Your task to perform on an android device: toggle location history Image 0: 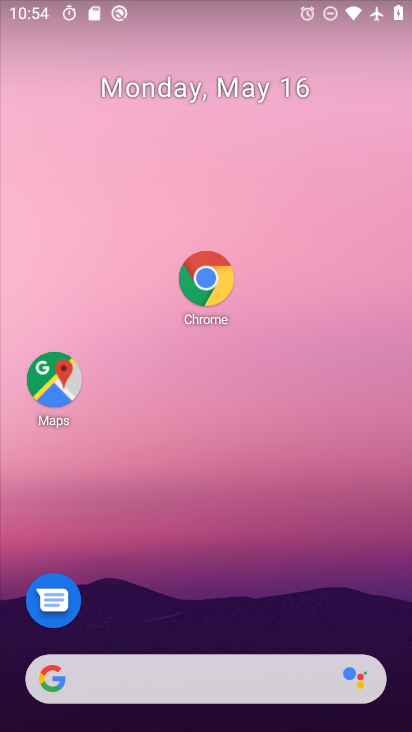
Step 0: press home button
Your task to perform on an android device: toggle location history Image 1: 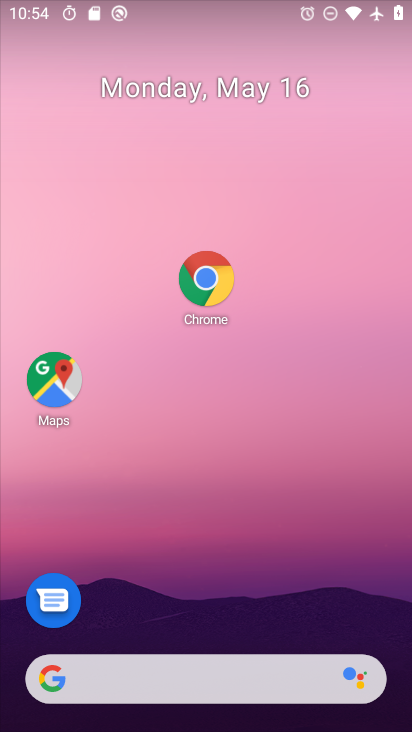
Step 1: drag from (253, 673) to (341, 222)
Your task to perform on an android device: toggle location history Image 2: 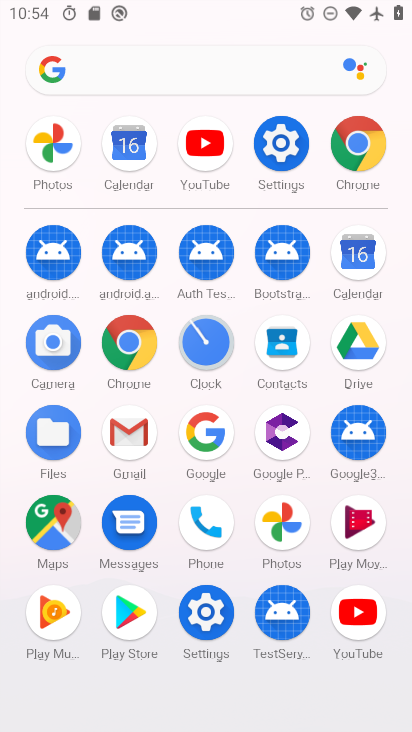
Step 2: click (285, 151)
Your task to perform on an android device: toggle location history Image 3: 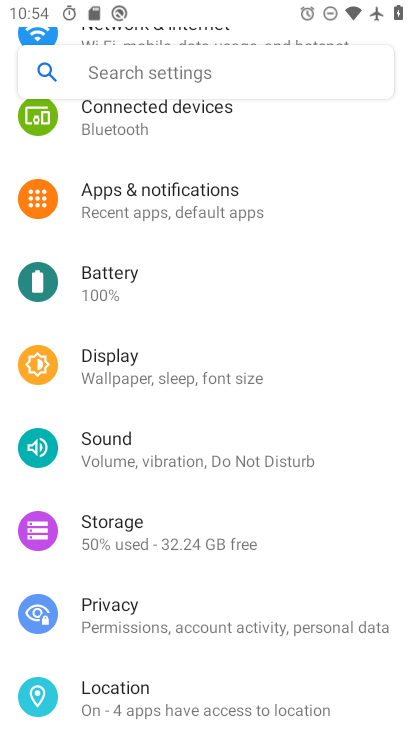
Step 3: click (119, 690)
Your task to perform on an android device: toggle location history Image 4: 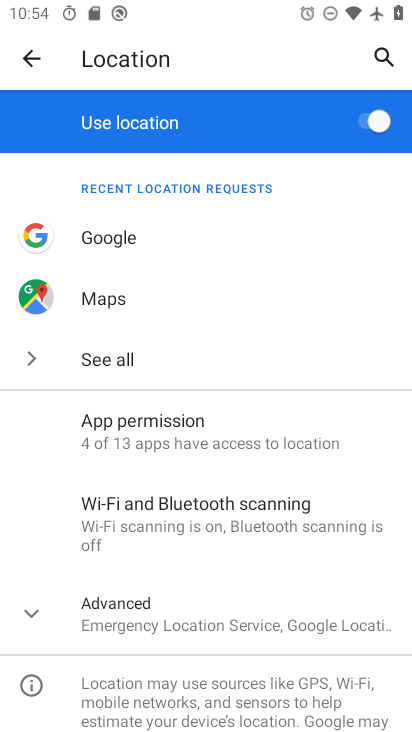
Step 4: click (157, 615)
Your task to perform on an android device: toggle location history Image 5: 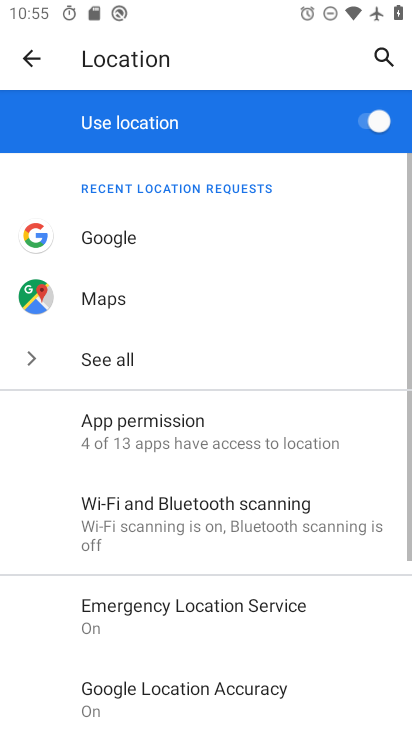
Step 5: drag from (227, 640) to (302, 177)
Your task to perform on an android device: toggle location history Image 6: 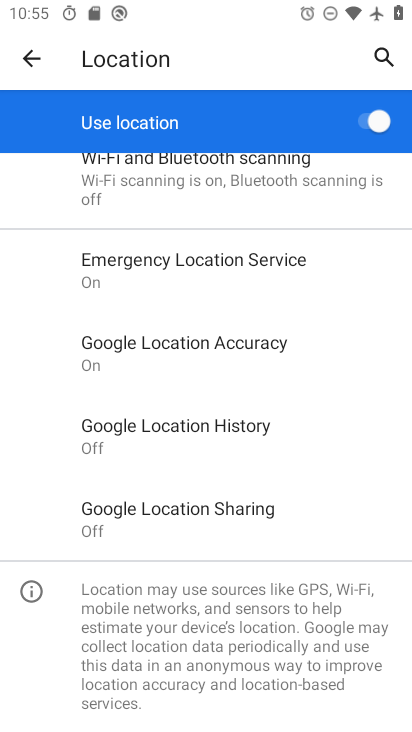
Step 6: click (151, 424)
Your task to perform on an android device: toggle location history Image 7: 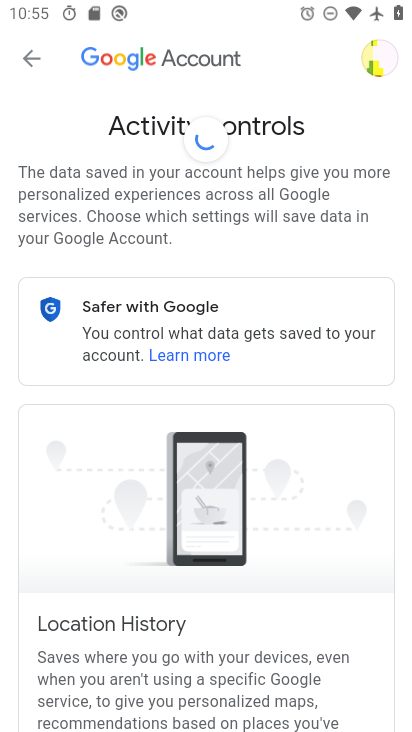
Step 7: drag from (258, 540) to (319, 191)
Your task to perform on an android device: toggle location history Image 8: 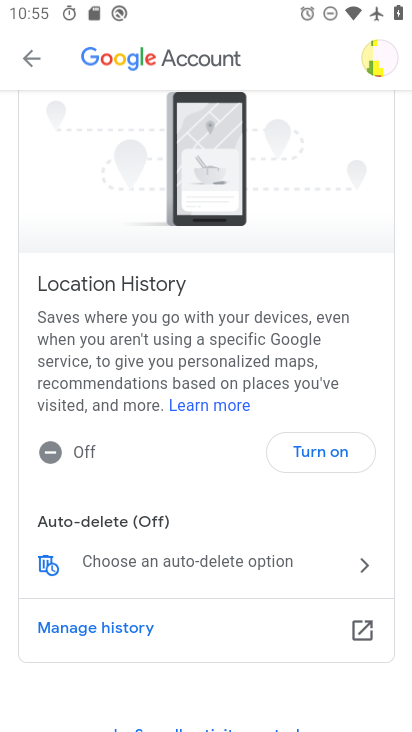
Step 8: click (301, 456)
Your task to perform on an android device: toggle location history Image 9: 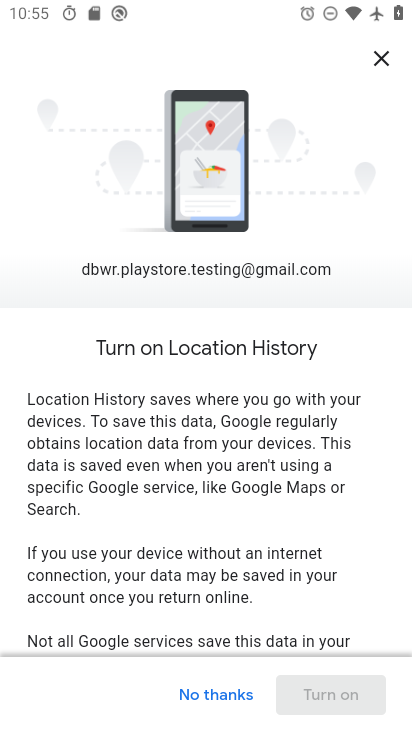
Step 9: drag from (248, 617) to (404, 210)
Your task to perform on an android device: toggle location history Image 10: 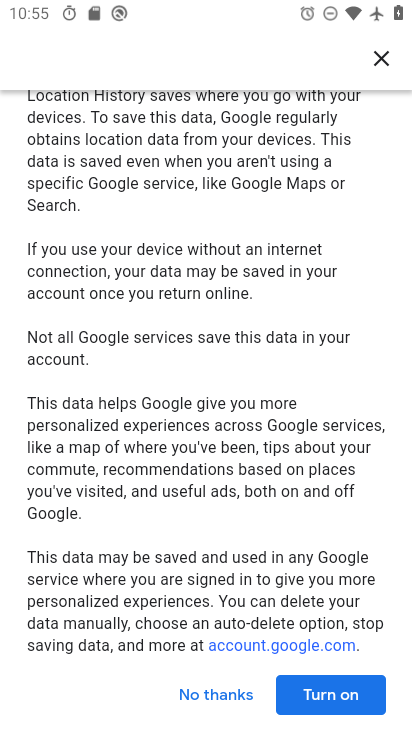
Step 10: click (329, 690)
Your task to perform on an android device: toggle location history Image 11: 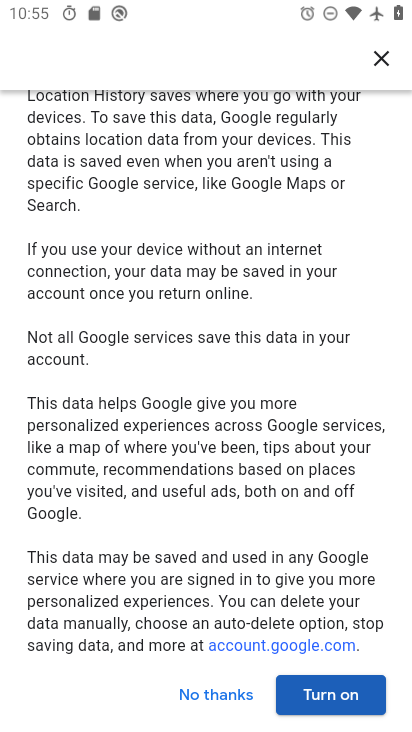
Step 11: click (331, 716)
Your task to perform on an android device: toggle location history Image 12: 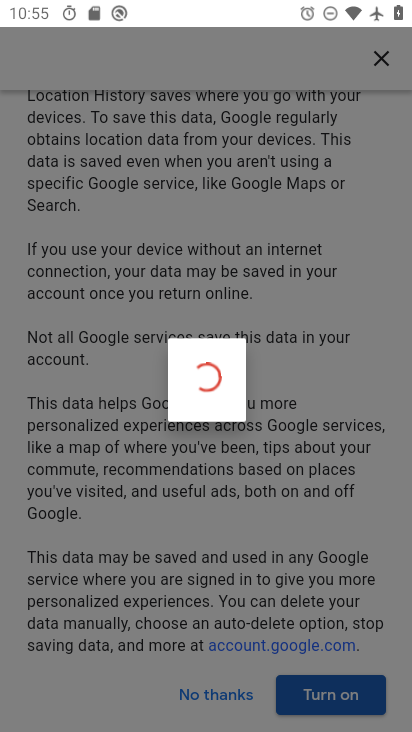
Step 12: click (328, 699)
Your task to perform on an android device: toggle location history Image 13: 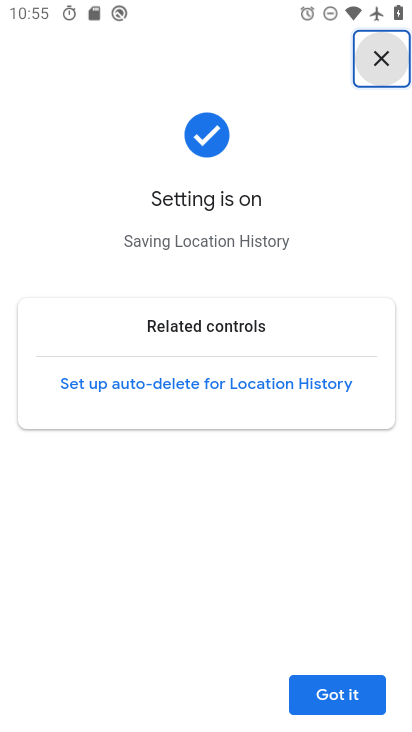
Step 13: task complete